Your task to perform on an android device: toggle show notifications on the lock screen Image 0: 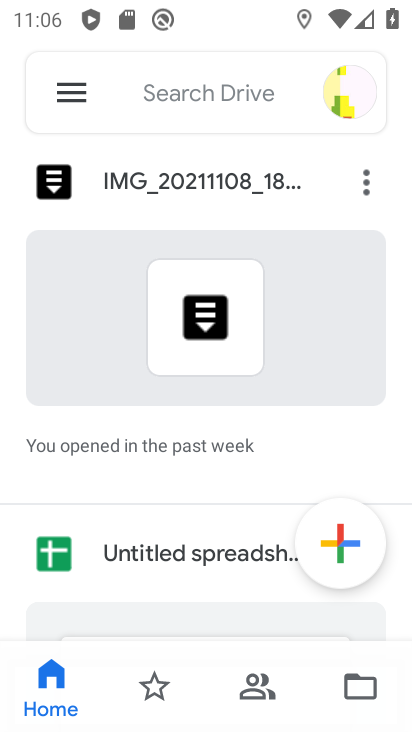
Step 0: press home button
Your task to perform on an android device: toggle show notifications on the lock screen Image 1: 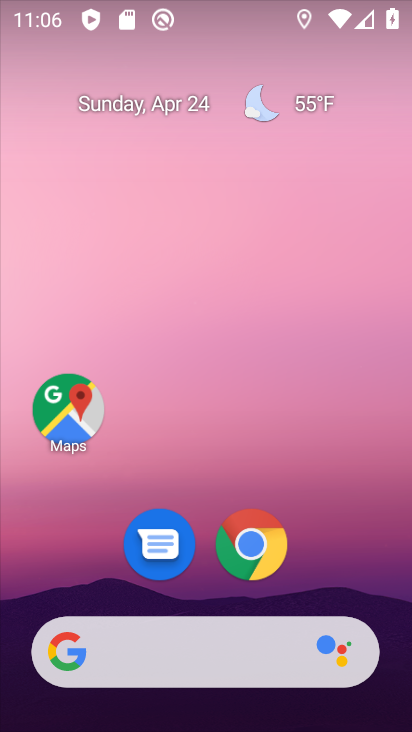
Step 1: drag from (327, 562) to (309, 80)
Your task to perform on an android device: toggle show notifications on the lock screen Image 2: 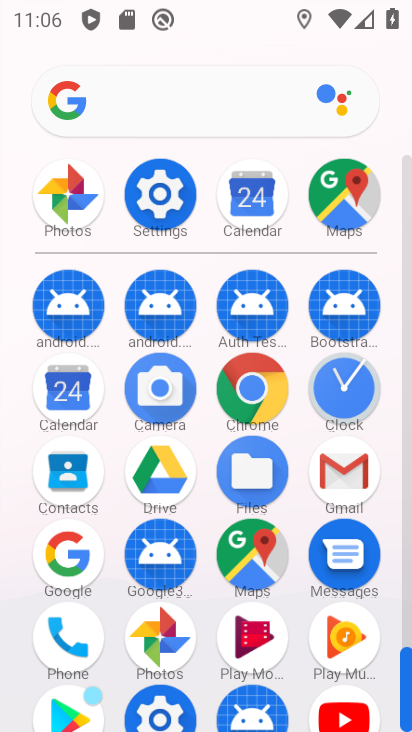
Step 2: click (158, 192)
Your task to perform on an android device: toggle show notifications on the lock screen Image 3: 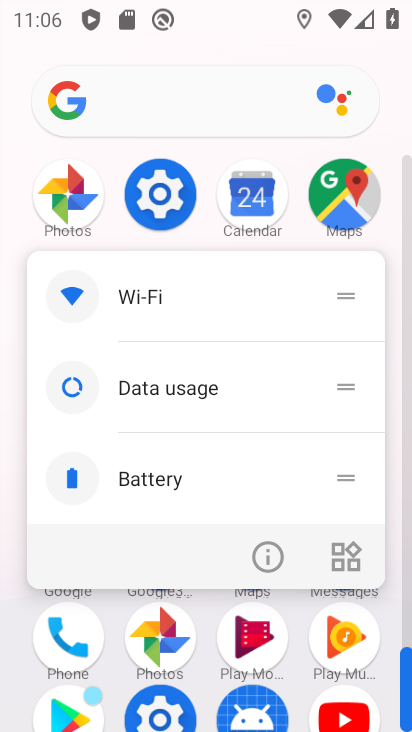
Step 3: click (159, 193)
Your task to perform on an android device: toggle show notifications on the lock screen Image 4: 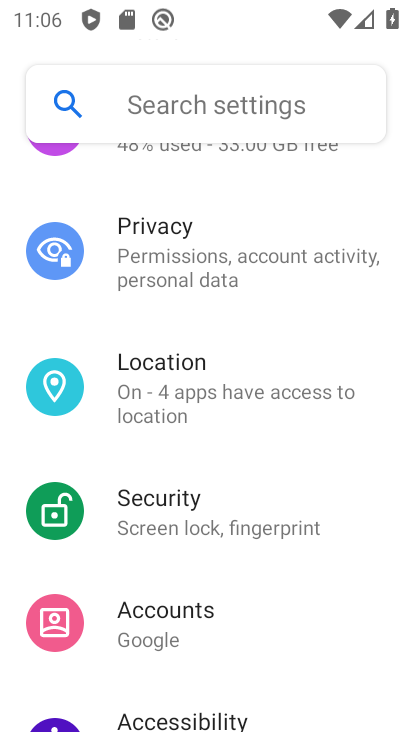
Step 4: drag from (248, 238) to (235, 637)
Your task to perform on an android device: toggle show notifications on the lock screen Image 5: 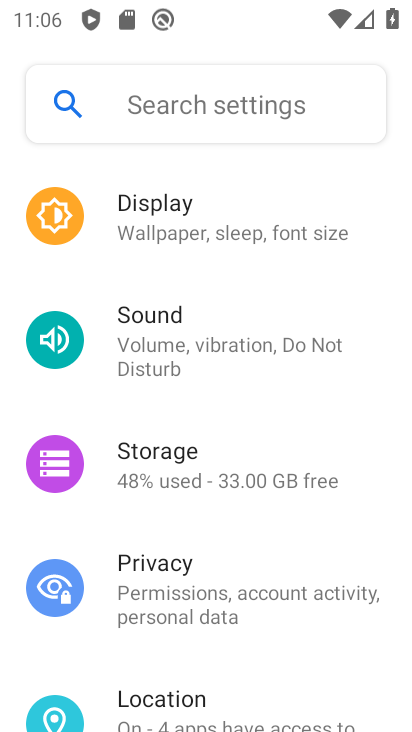
Step 5: drag from (181, 214) to (168, 598)
Your task to perform on an android device: toggle show notifications on the lock screen Image 6: 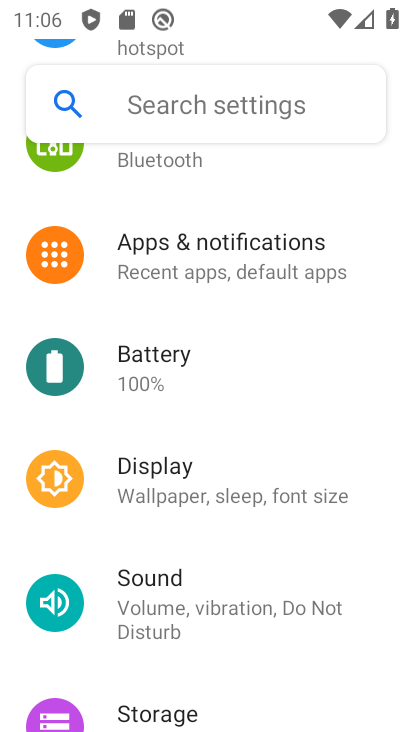
Step 6: click (219, 273)
Your task to perform on an android device: toggle show notifications on the lock screen Image 7: 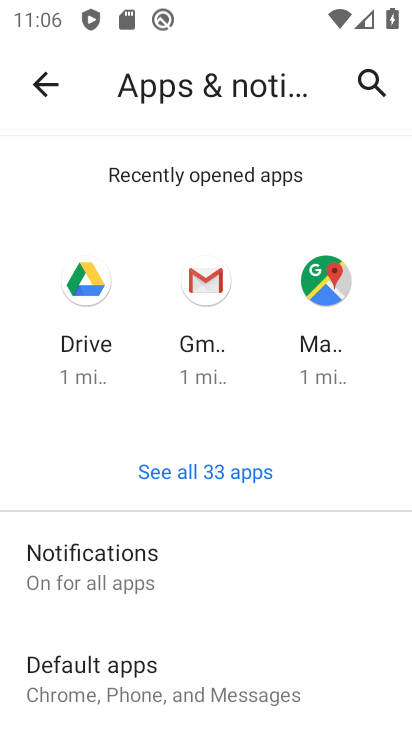
Step 7: drag from (214, 673) to (198, 296)
Your task to perform on an android device: toggle show notifications on the lock screen Image 8: 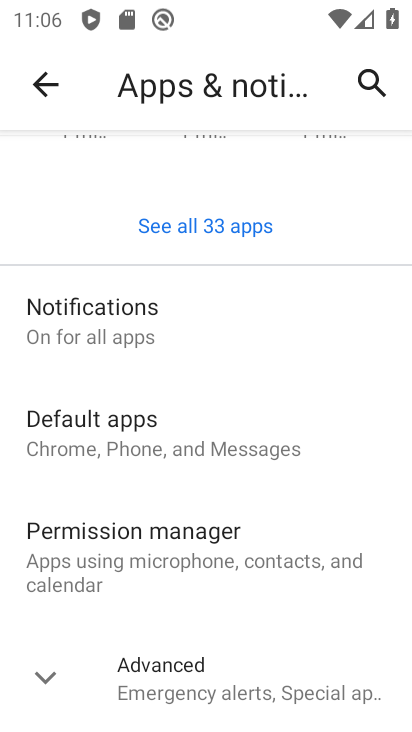
Step 8: click (105, 318)
Your task to perform on an android device: toggle show notifications on the lock screen Image 9: 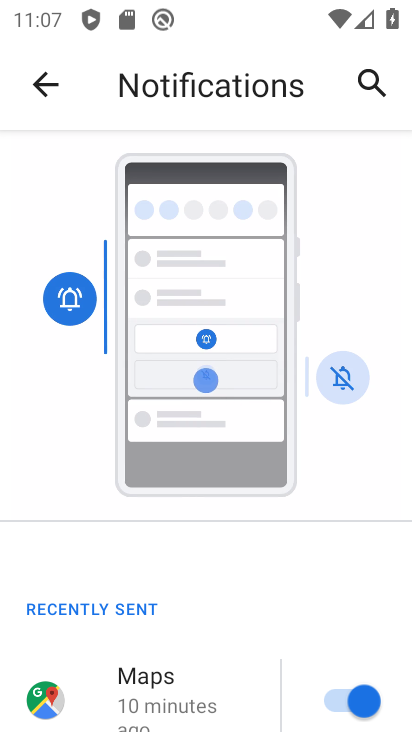
Step 9: drag from (167, 583) to (183, 238)
Your task to perform on an android device: toggle show notifications on the lock screen Image 10: 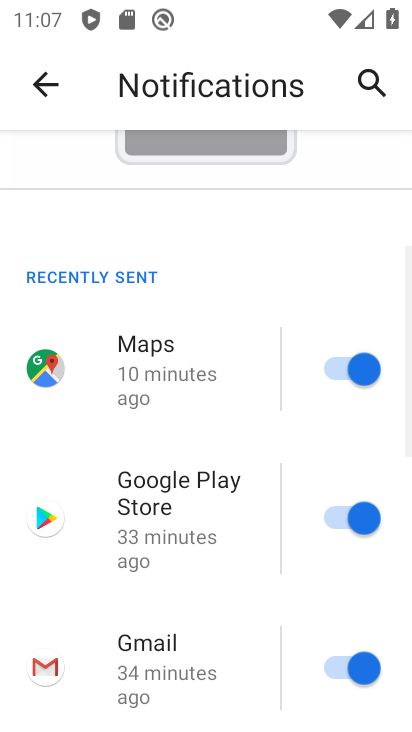
Step 10: drag from (171, 658) to (219, 205)
Your task to perform on an android device: toggle show notifications on the lock screen Image 11: 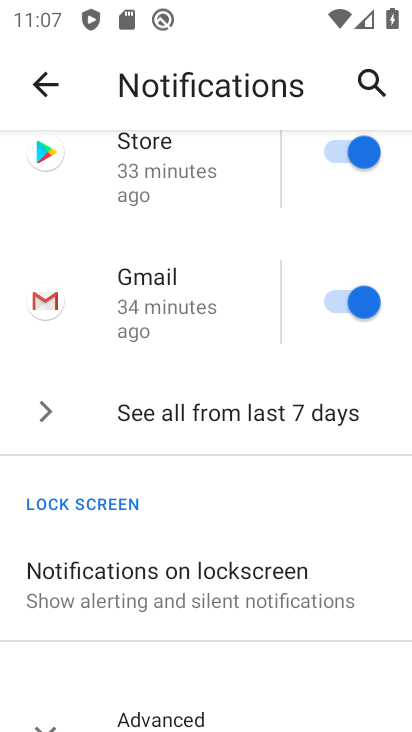
Step 11: click (179, 593)
Your task to perform on an android device: toggle show notifications on the lock screen Image 12: 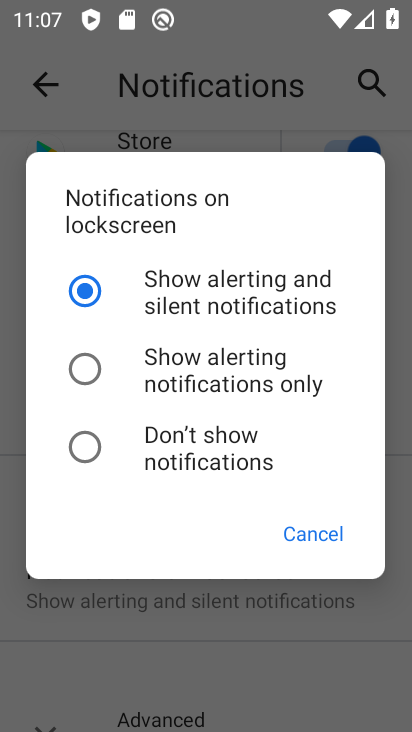
Step 12: click (193, 366)
Your task to perform on an android device: toggle show notifications on the lock screen Image 13: 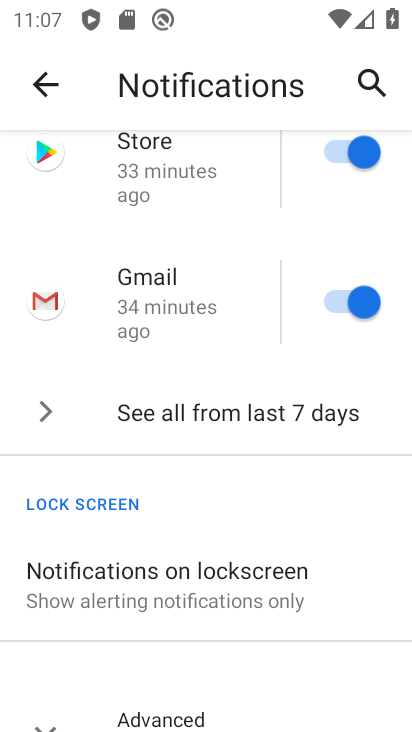
Step 13: task complete